Your task to perform on an android device: Search for Mexican restaurants on Maps Image 0: 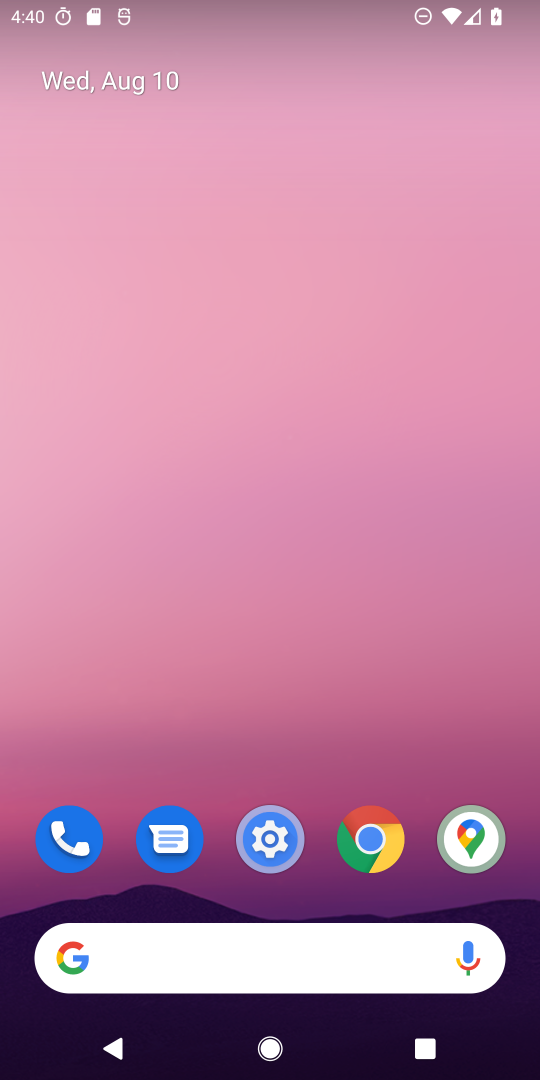
Step 0: click (479, 833)
Your task to perform on an android device: Search for Mexican restaurants on Maps Image 1: 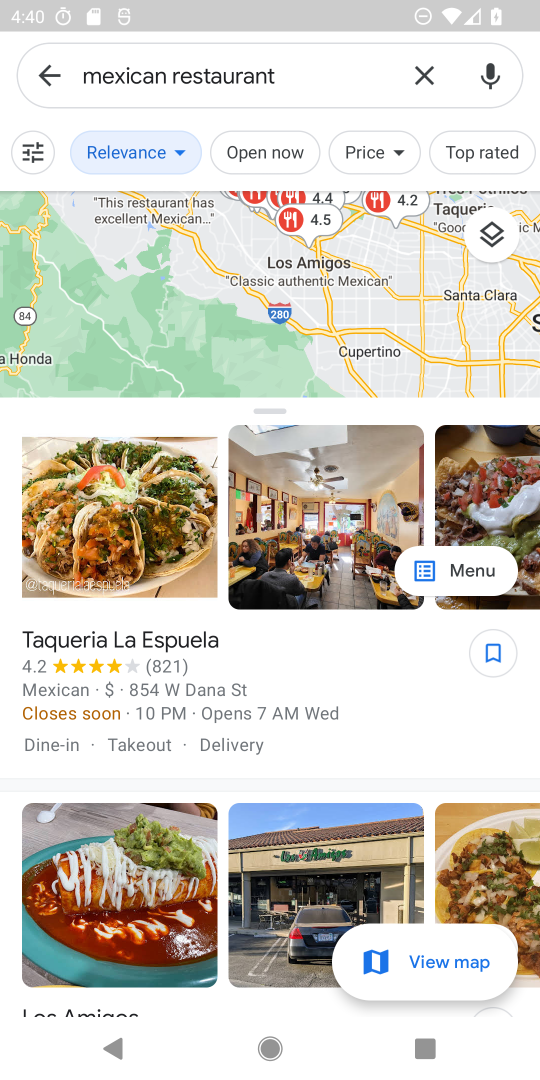
Step 1: task complete